Your task to perform on an android device: turn on javascript in the chrome app Image 0: 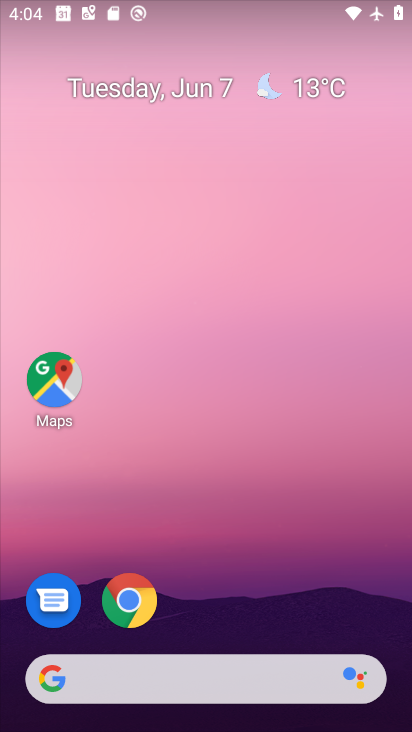
Step 0: click (326, 87)
Your task to perform on an android device: turn on javascript in the chrome app Image 1: 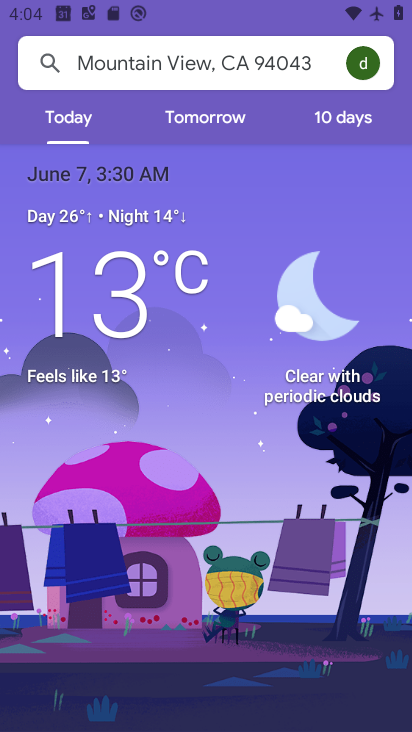
Step 1: press home button
Your task to perform on an android device: turn on javascript in the chrome app Image 2: 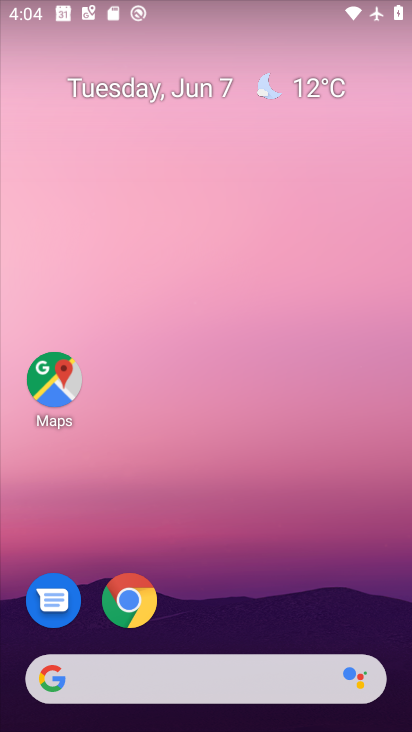
Step 2: click (125, 594)
Your task to perform on an android device: turn on javascript in the chrome app Image 3: 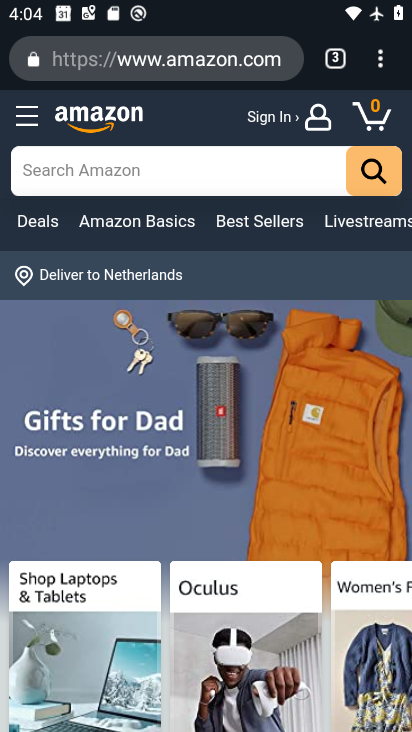
Step 3: drag from (380, 56) to (189, 635)
Your task to perform on an android device: turn on javascript in the chrome app Image 4: 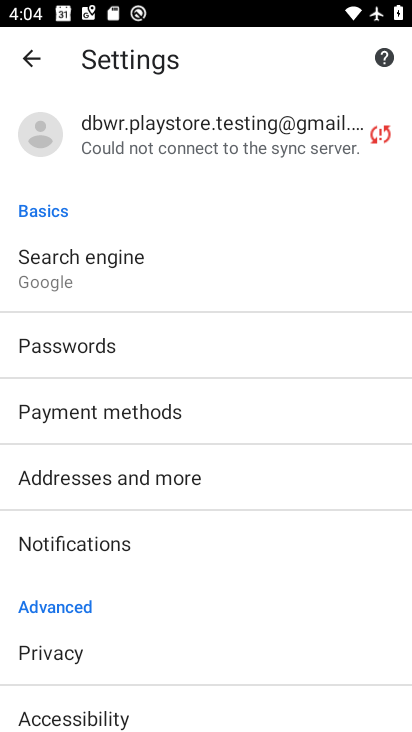
Step 4: drag from (194, 623) to (236, 179)
Your task to perform on an android device: turn on javascript in the chrome app Image 5: 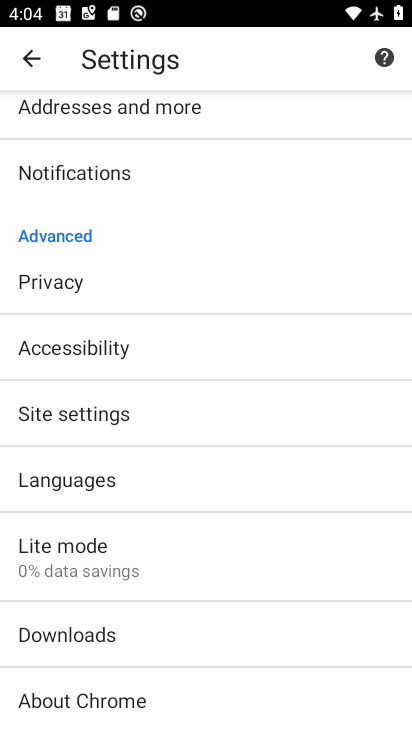
Step 5: click (85, 405)
Your task to perform on an android device: turn on javascript in the chrome app Image 6: 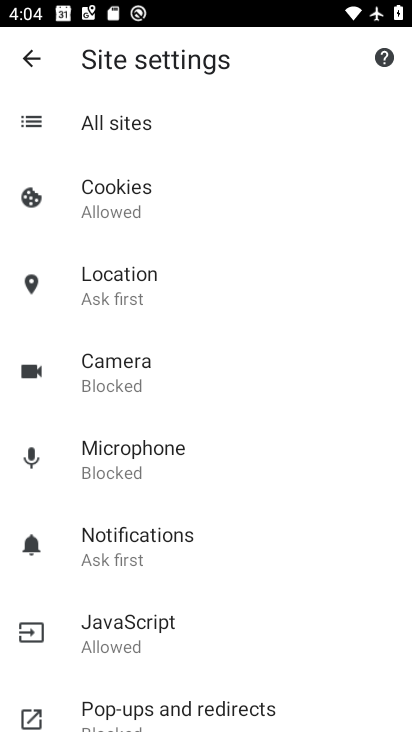
Step 6: click (150, 622)
Your task to perform on an android device: turn on javascript in the chrome app Image 7: 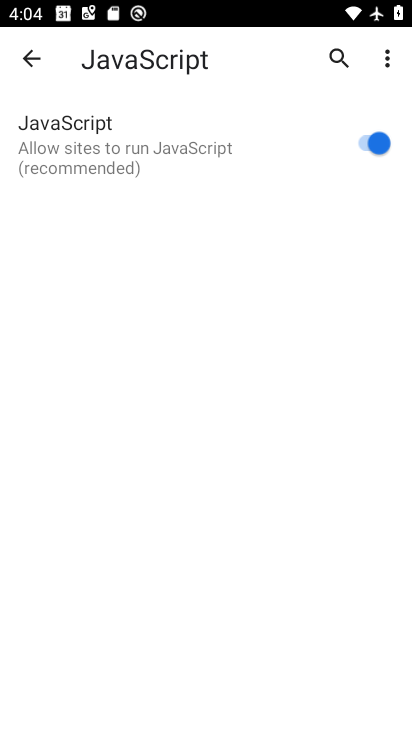
Step 7: task complete